Your task to perform on an android device: Add logitech g pro to the cart on newegg.com Image 0: 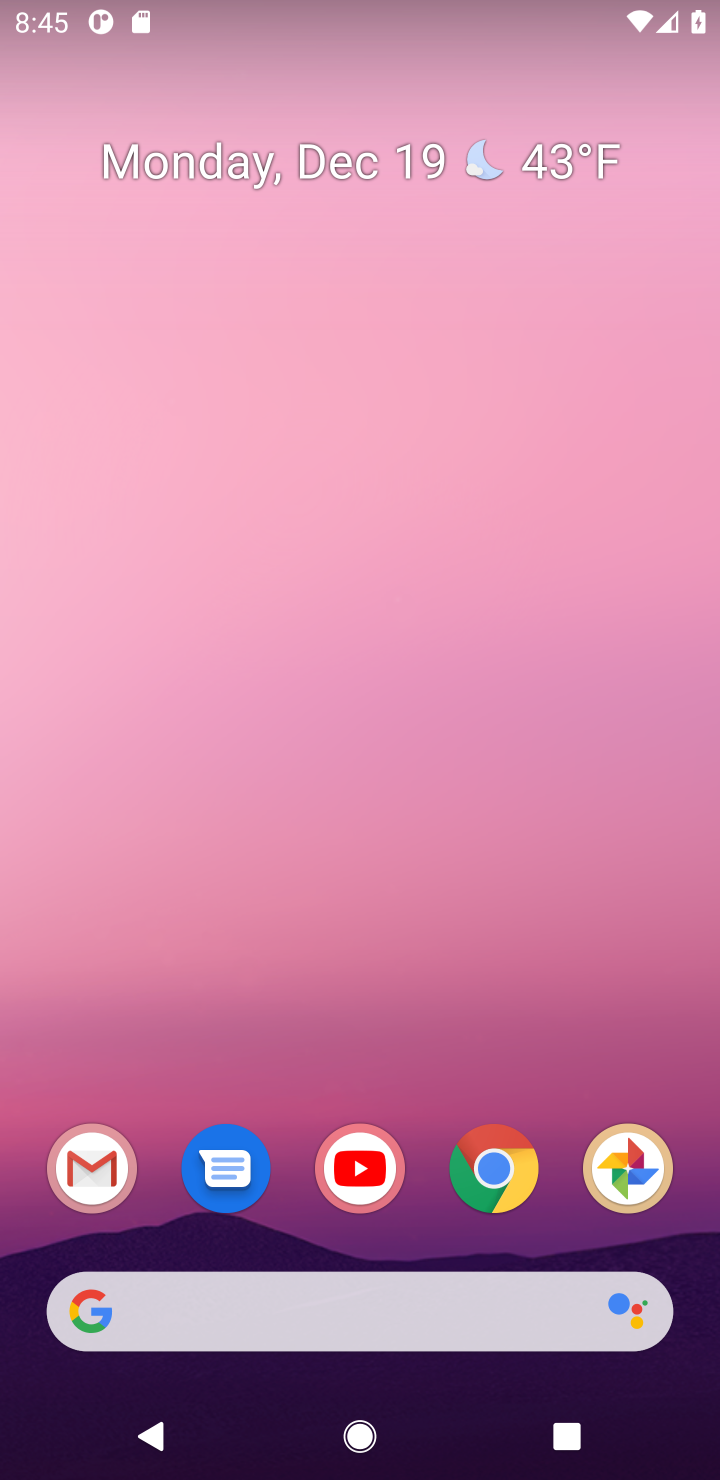
Step 0: click (500, 1175)
Your task to perform on an android device: Add logitech g pro to the cart on newegg.com Image 1: 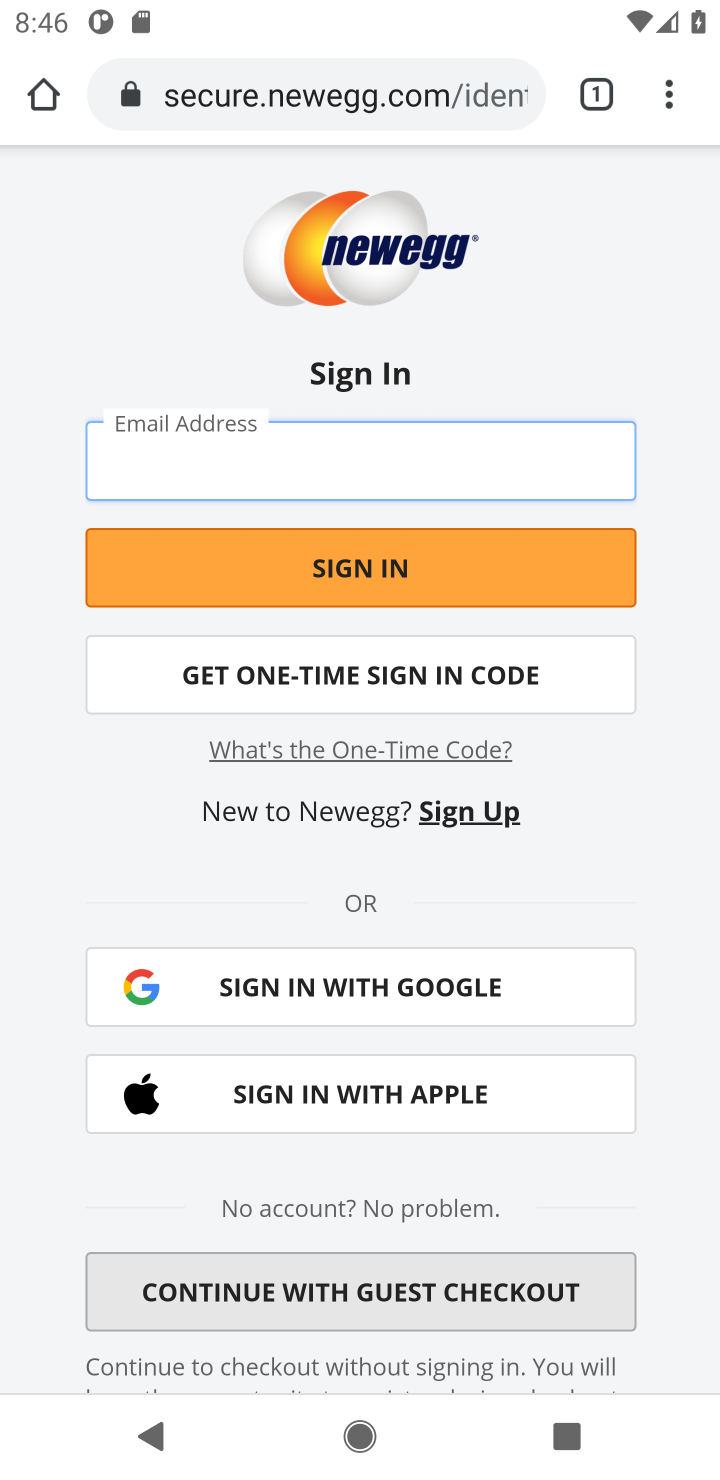
Step 1: press back button
Your task to perform on an android device: Add logitech g pro to the cart on newegg.com Image 2: 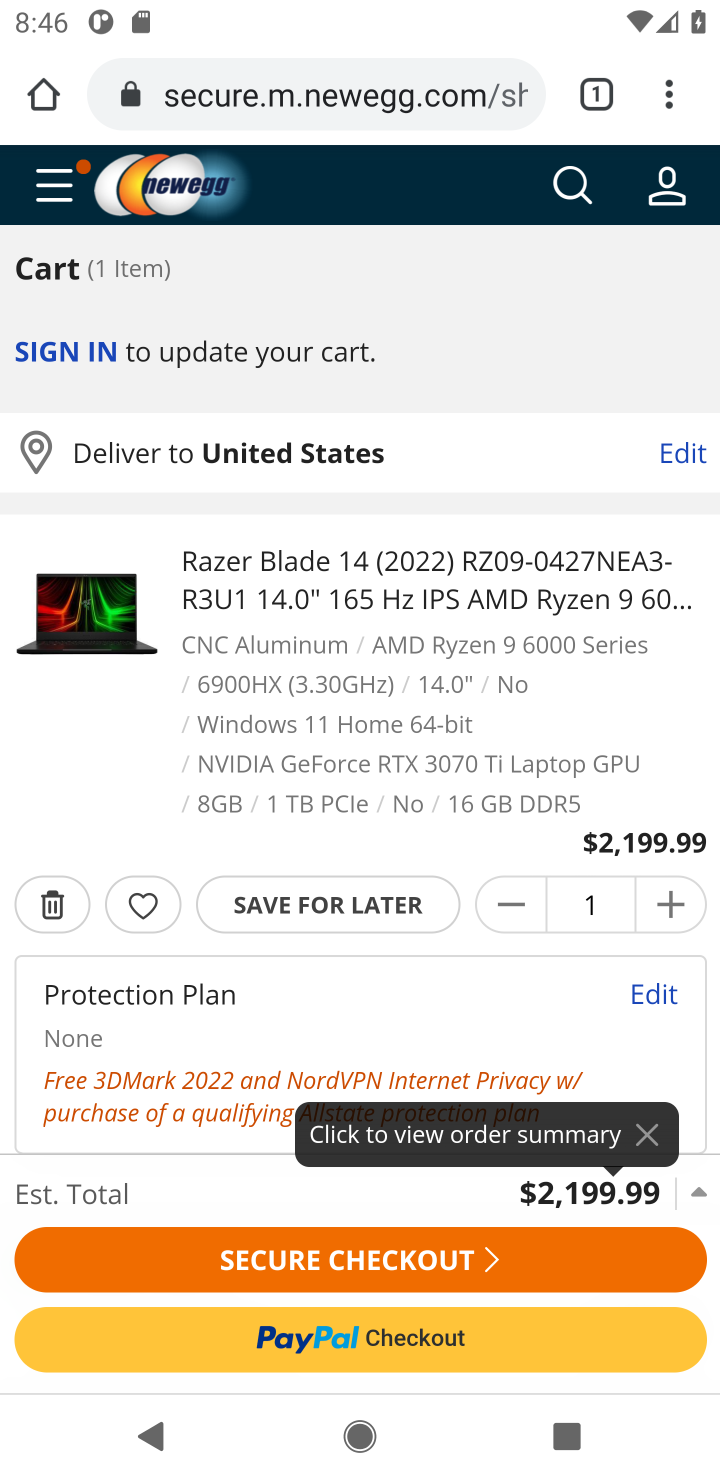
Step 2: click (579, 195)
Your task to perform on an android device: Add logitech g pro to the cart on newegg.com Image 3: 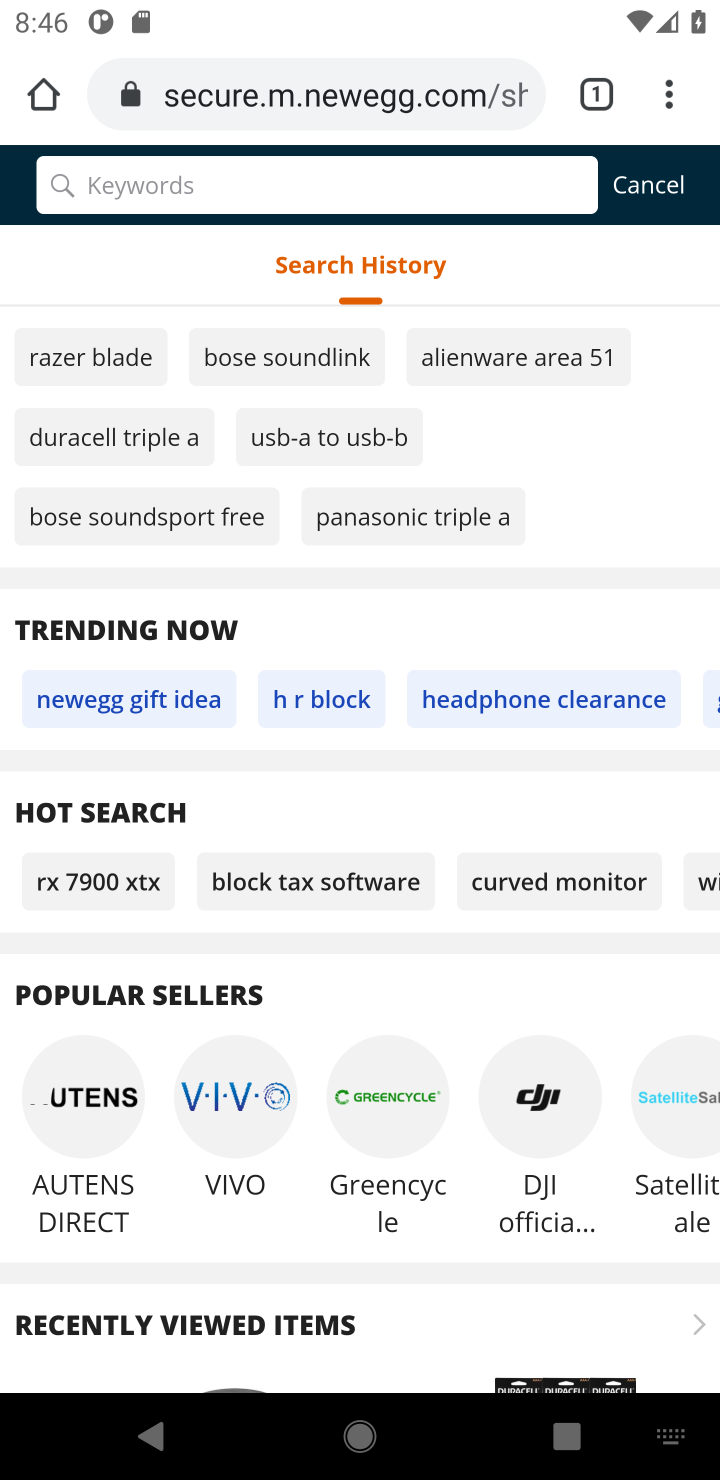
Step 3: type " logitech g pro"
Your task to perform on an android device: Add logitech g pro to the cart on newegg.com Image 4: 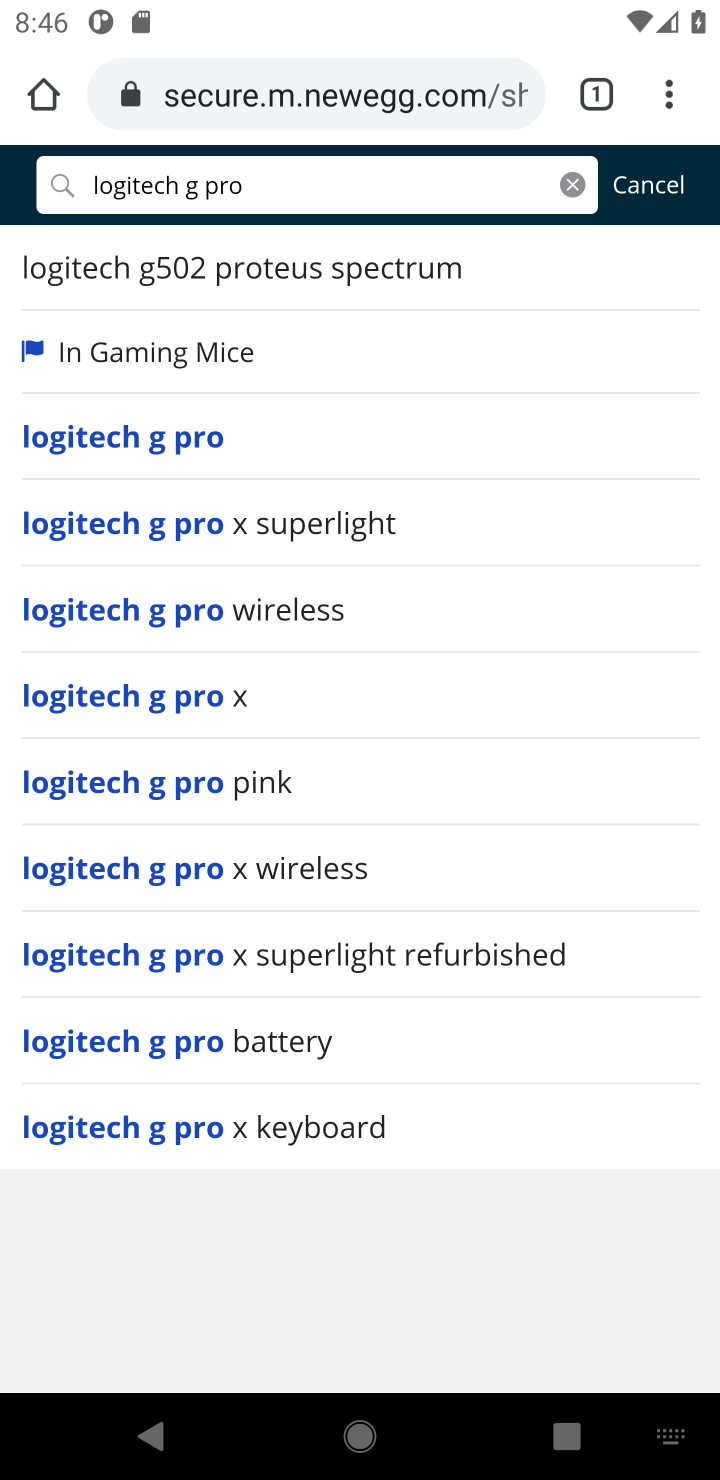
Step 4: click (104, 445)
Your task to perform on an android device: Add logitech g pro to the cart on newegg.com Image 5: 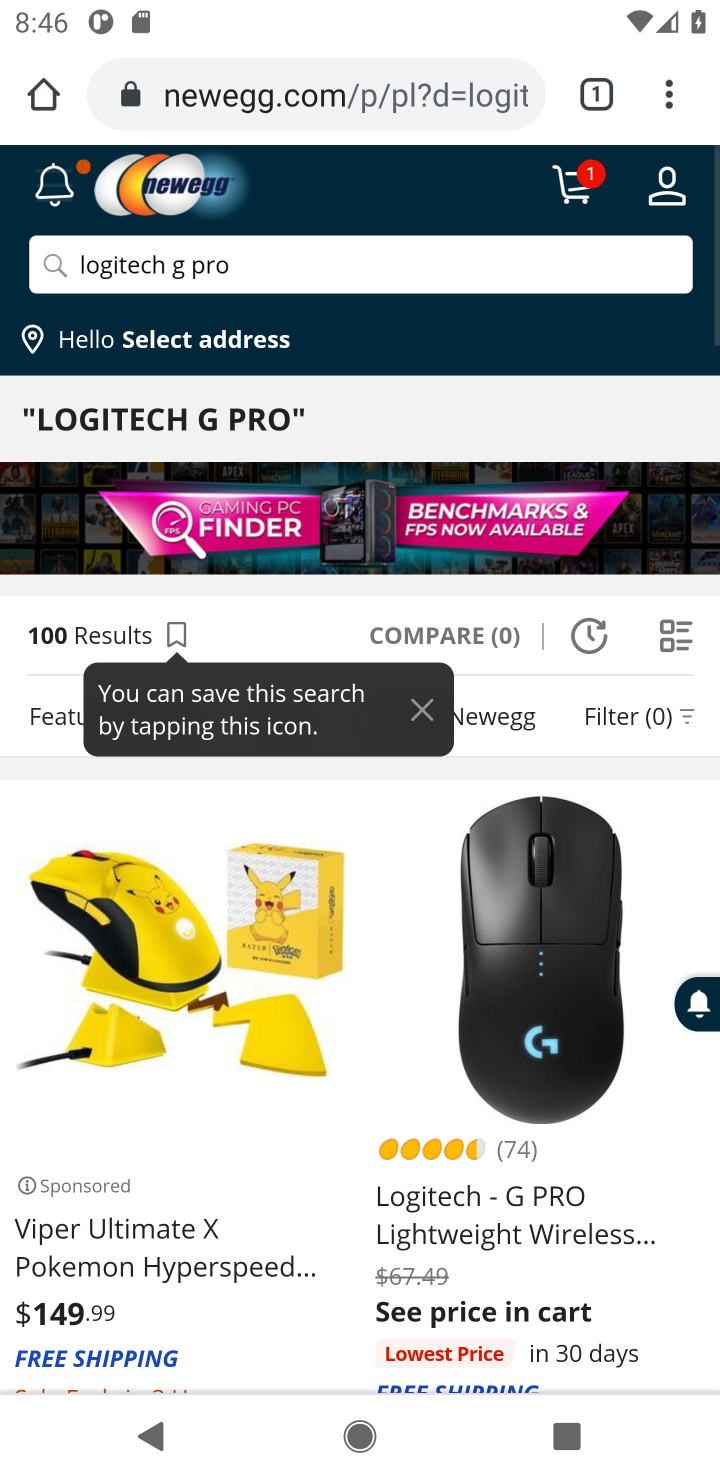
Step 5: click (499, 1230)
Your task to perform on an android device: Add logitech g pro to the cart on newegg.com Image 6: 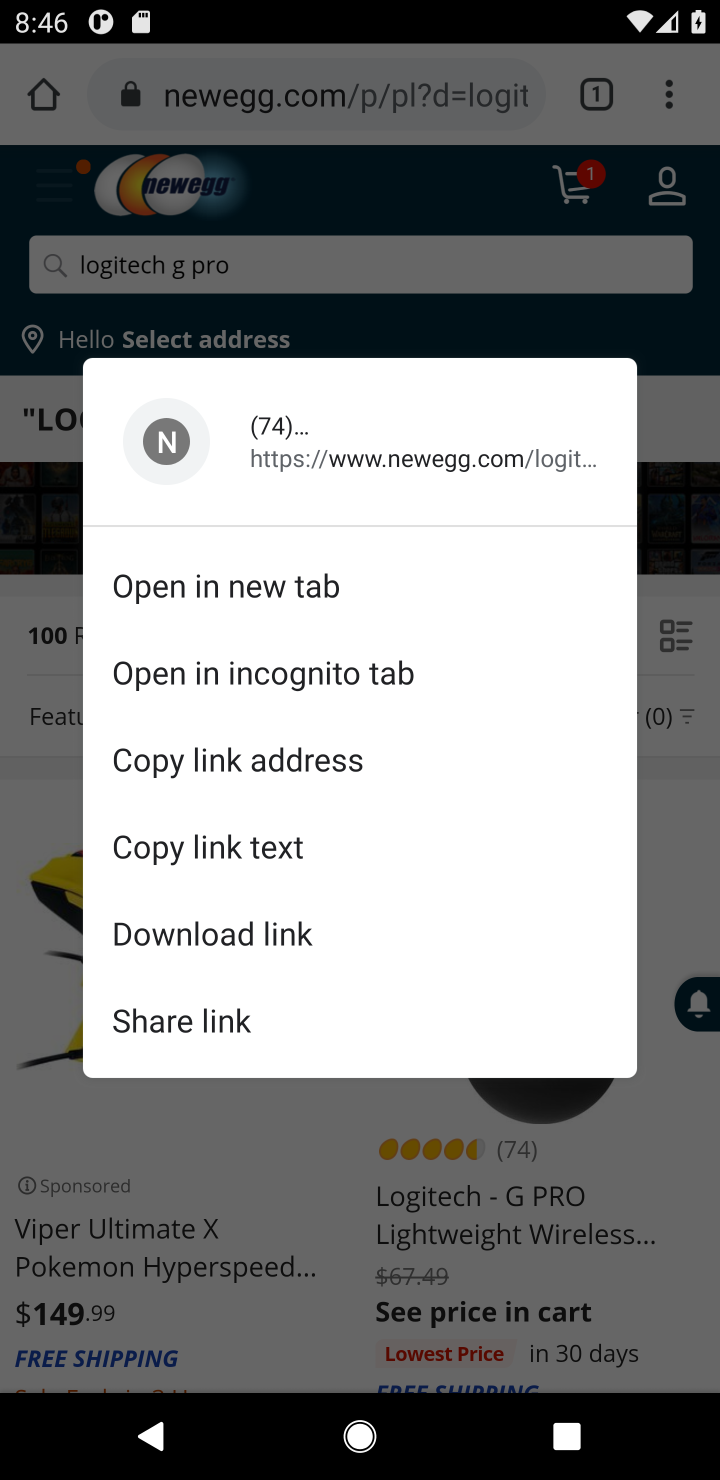
Step 6: click (499, 1230)
Your task to perform on an android device: Add logitech g pro to the cart on newegg.com Image 7: 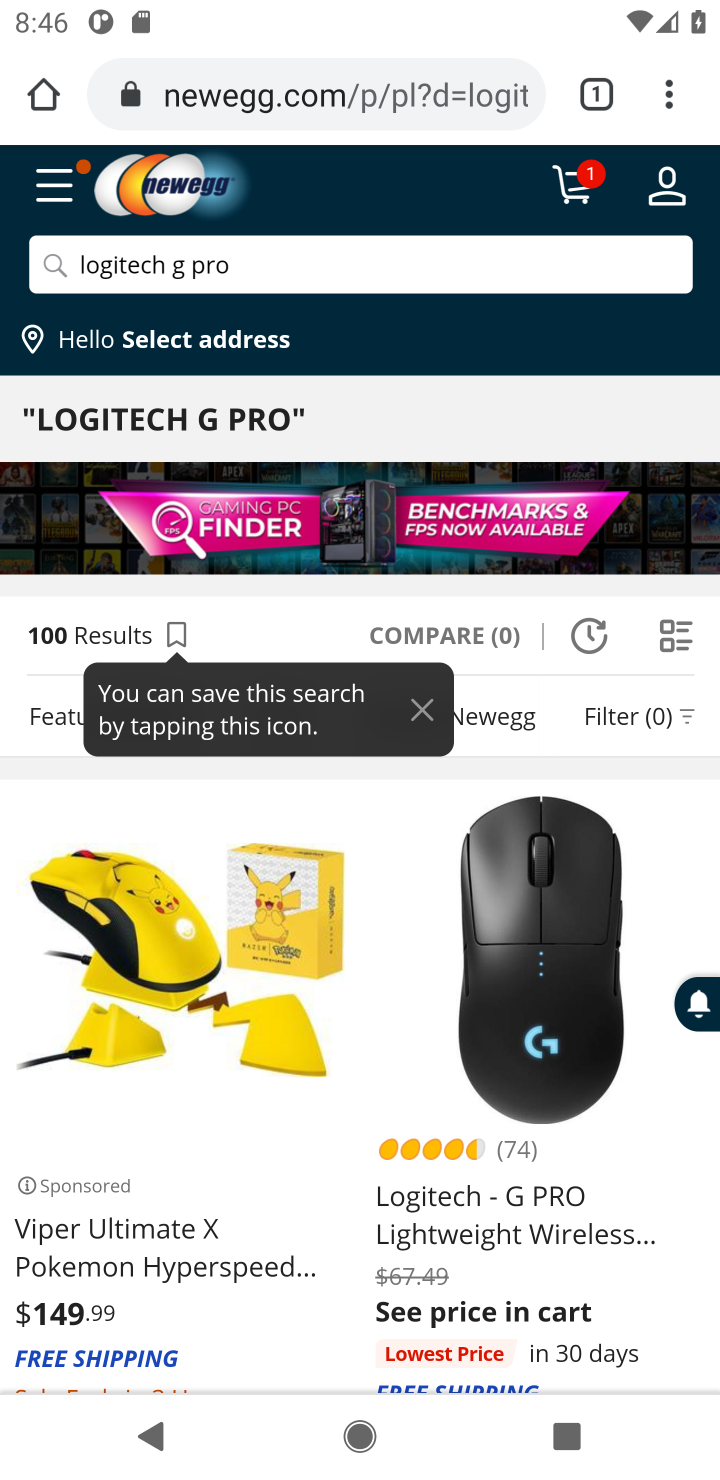
Step 7: click (448, 1241)
Your task to perform on an android device: Add logitech g pro to the cart on newegg.com Image 8: 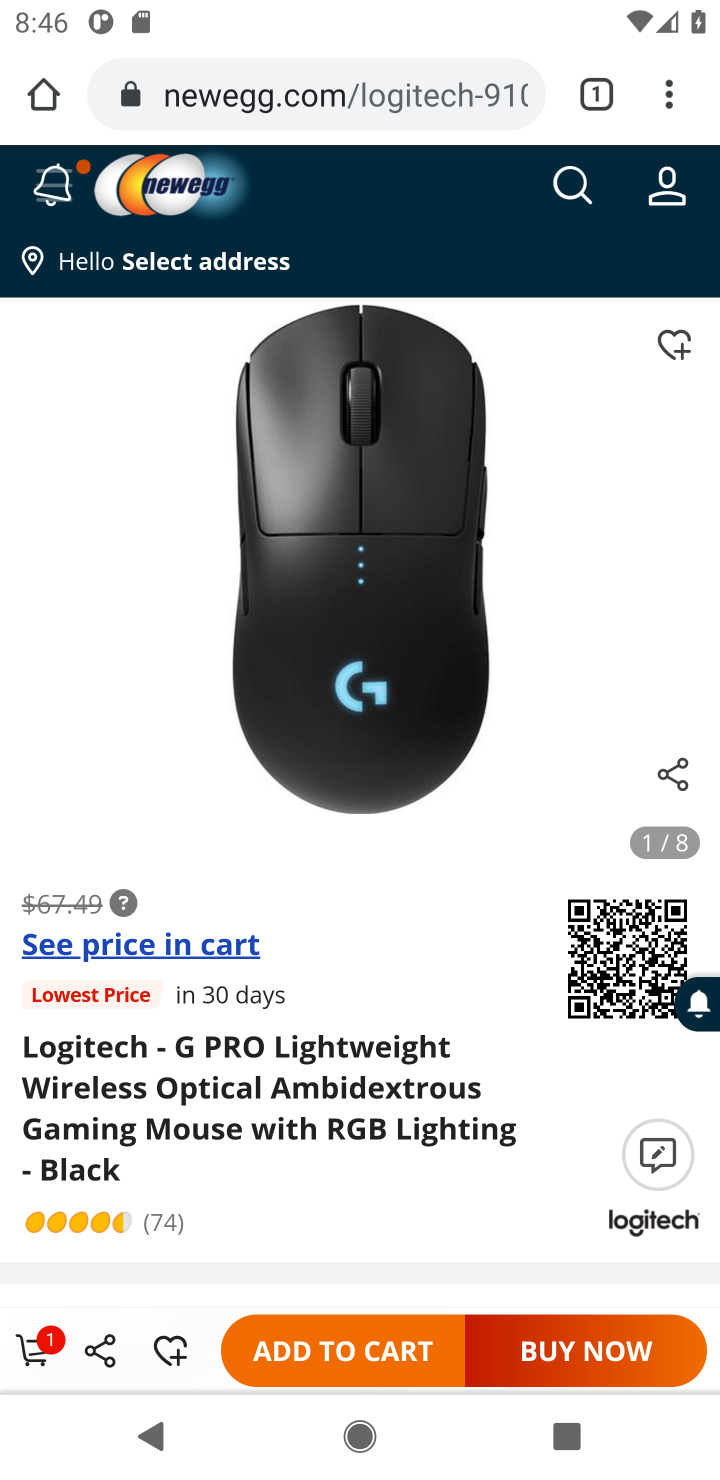
Step 8: click (448, 1239)
Your task to perform on an android device: Add logitech g pro to the cart on newegg.com Image 9: 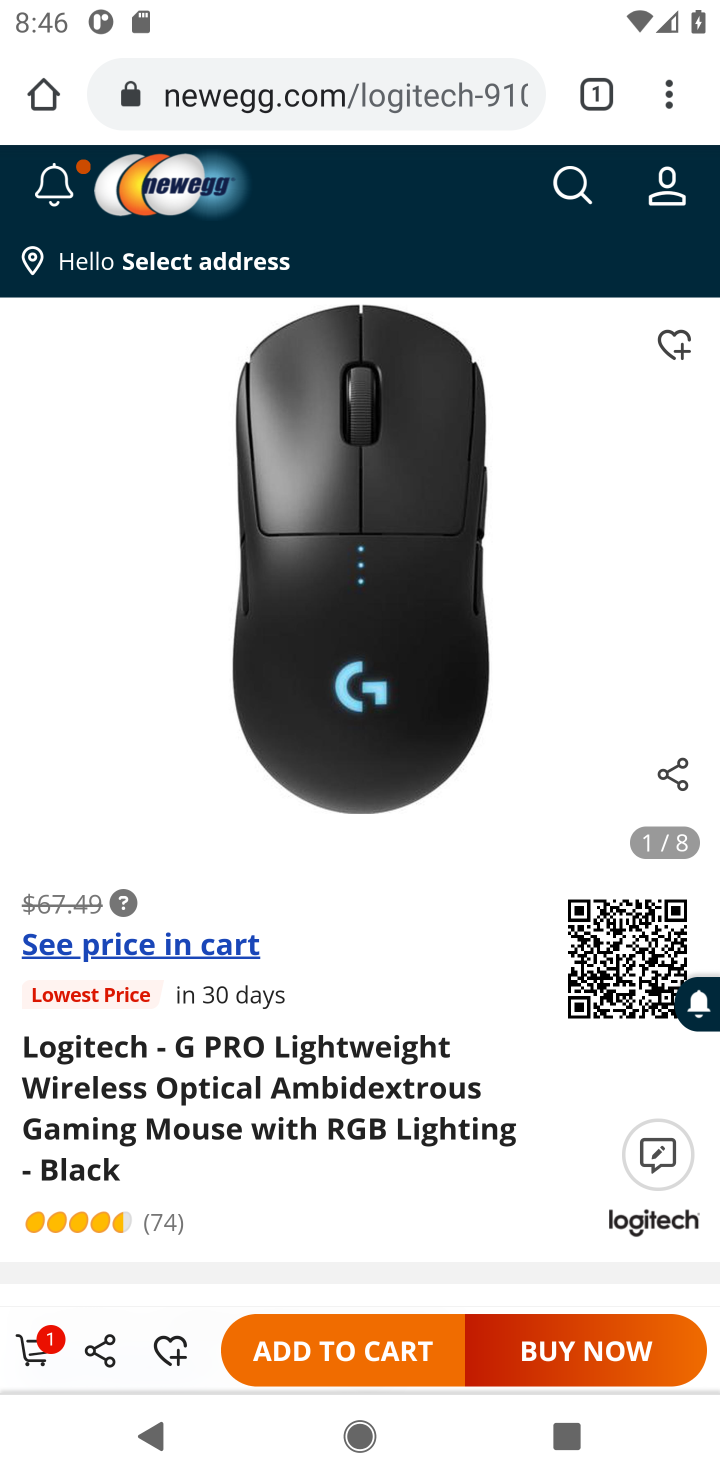
Step 9: click (376, 1360)
Your task to perform on an android device: Add logitech g pro to the cart on newegg.com Image 10: 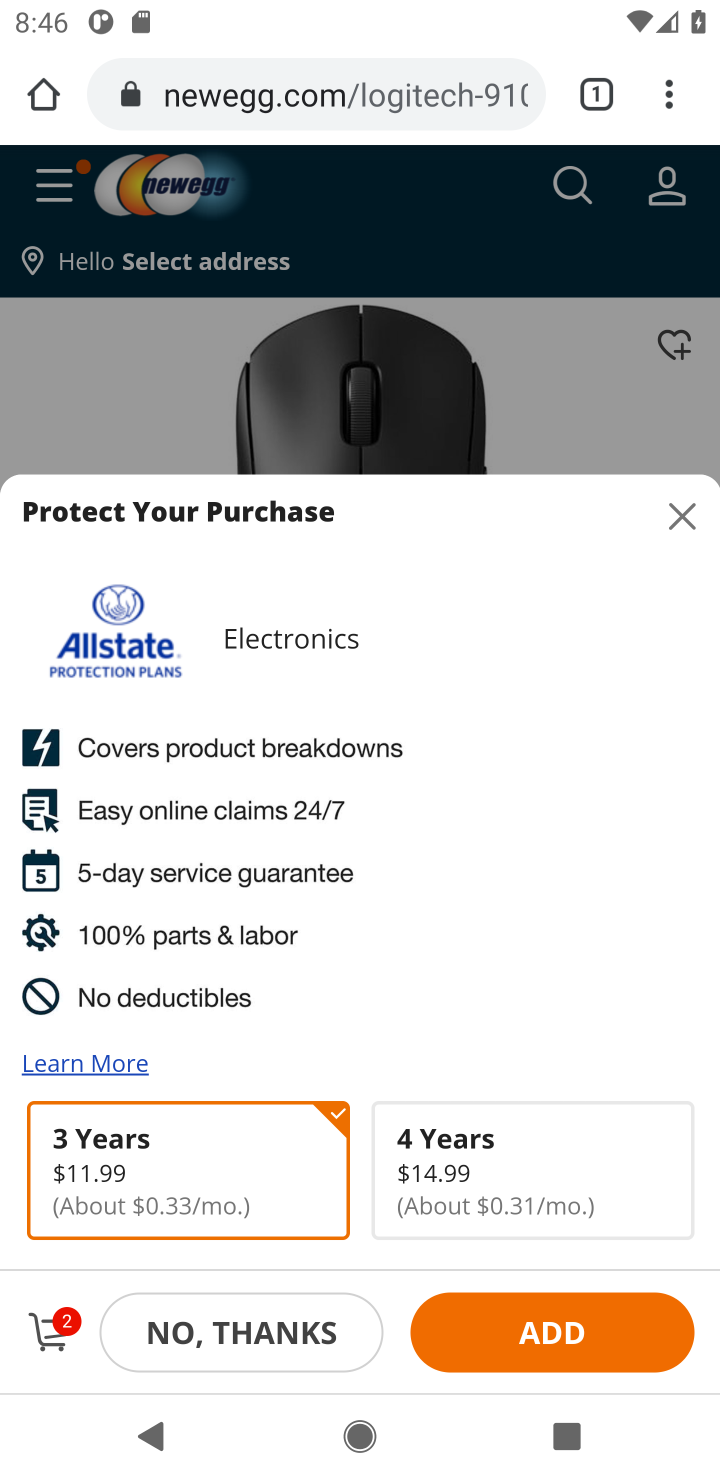
Step 10: task complete